Your task to perform on an android device: Check the weather Image 0: 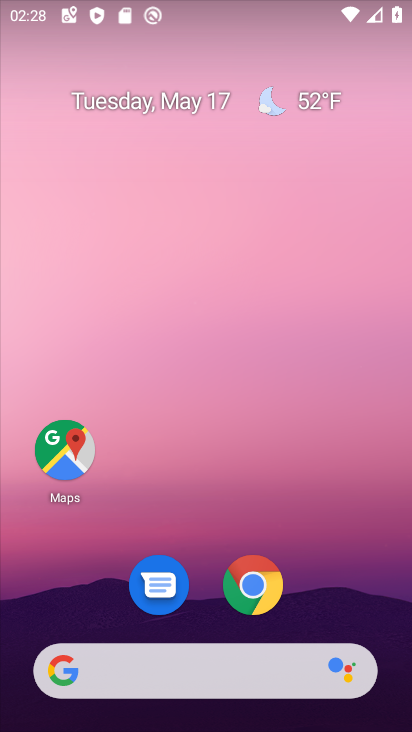
Step 0: click (313, 101)
Your task to perform on an android device: Check the weather Image 1: 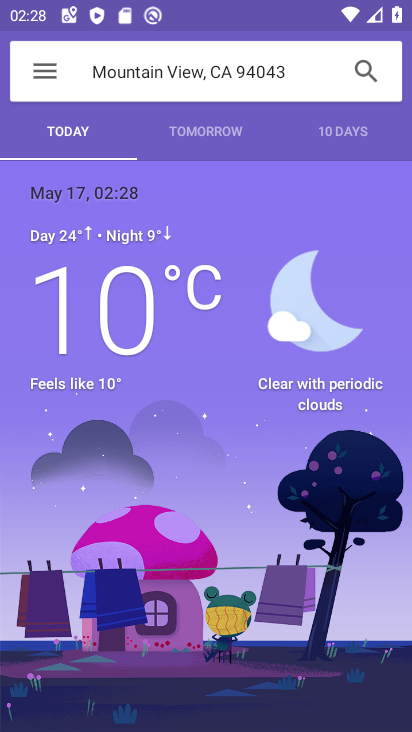
Step 1: task complete